Your task to perform on an android device: set the timer Image 0: 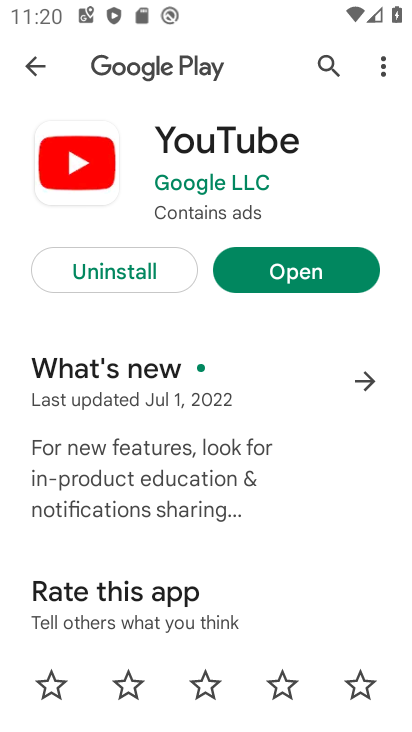
Step 0: press home button
Your task to perform on an android device: set the timer Image 1: 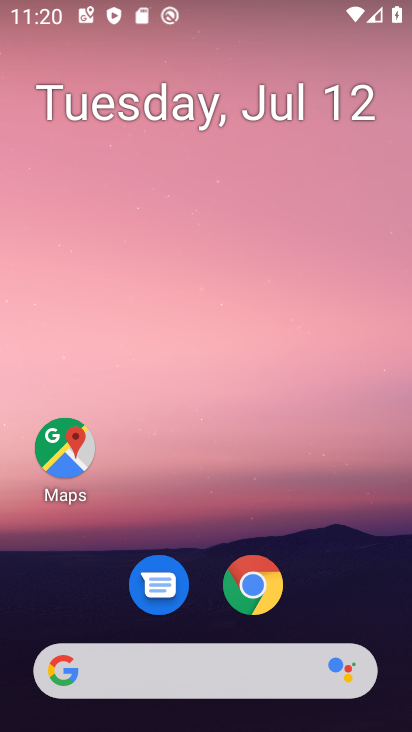
Step 1: drag from (325, 553) to (293, 6)
Your task to perform on an android device: set the timer Image 2: 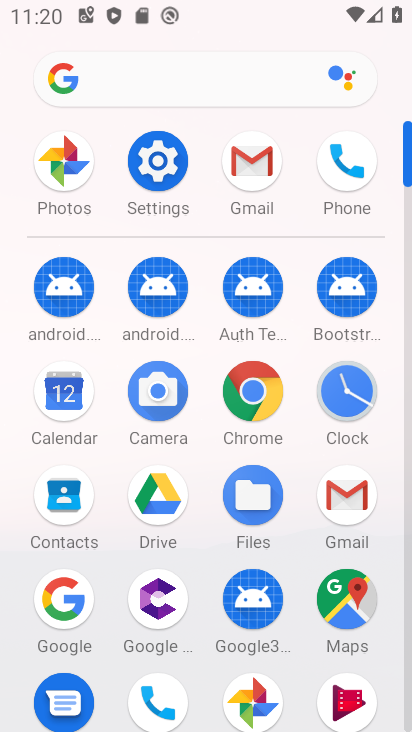
Step 2: drag from (295, 95) to (295, 54)
Your task to perform on an android device: set the timer Image 3: 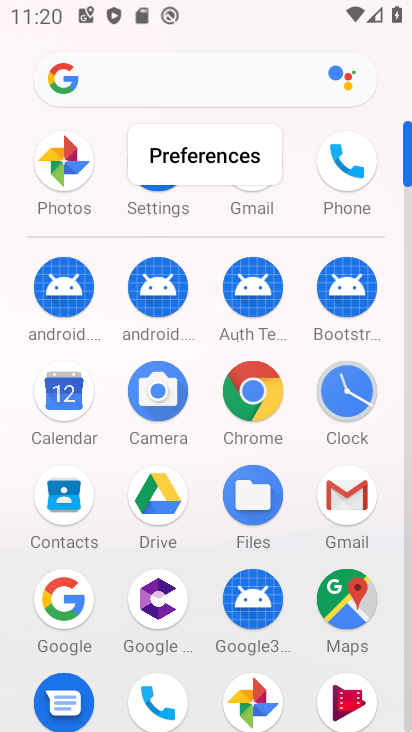
Step 3: click (346, 400)
Your task to perform on an android device: set the timer Image 4: 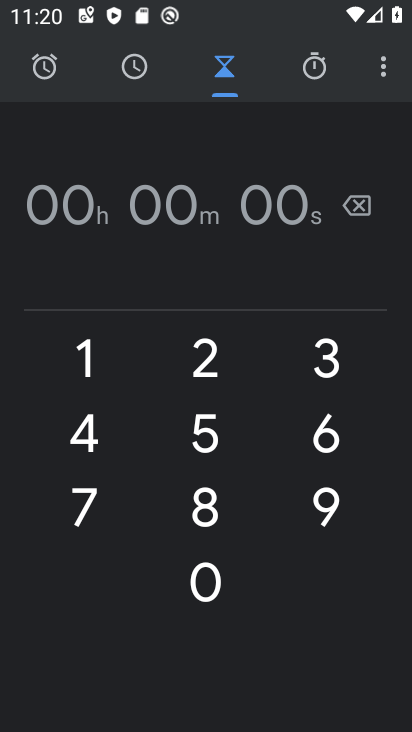
Step 4: click (92, 359)
Your task to perform on an android device: set the timer Image 5: 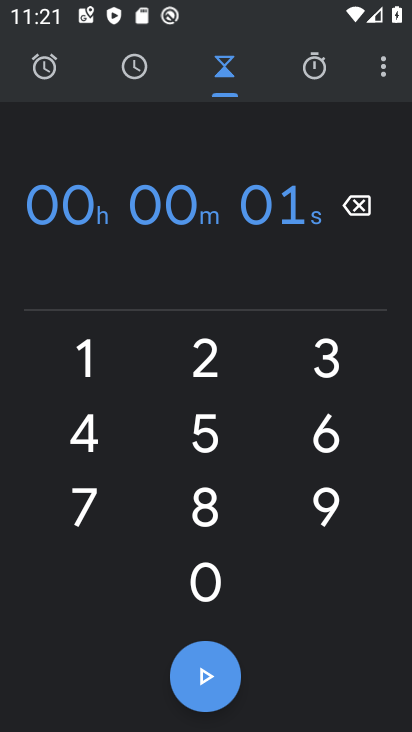
Step 5: task complete